Your task to perform on an android device: turn on showing notifications on the lock screen Image 0: 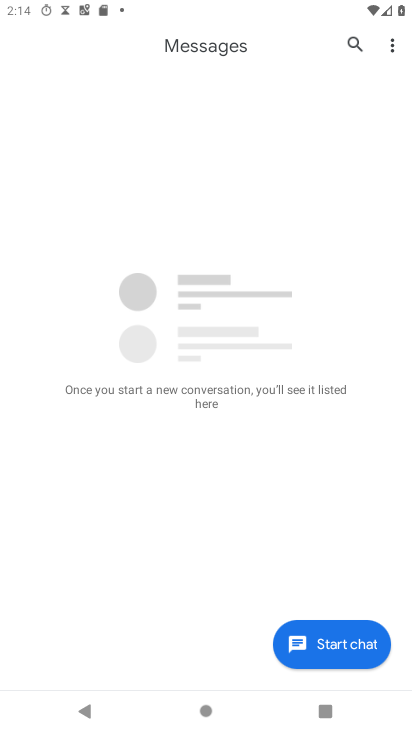
Step 0: press home button
Your task to perform on an android device: turn on showing notifications on the lock screen Image 1: 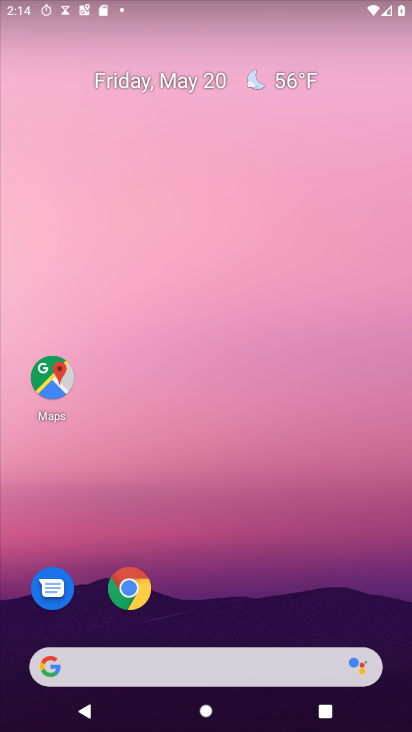
Step 1: drag from (42, 633) to (374, 197)
Your task to perform on an android device: turn on showing notifications on the lock screen Image 2: 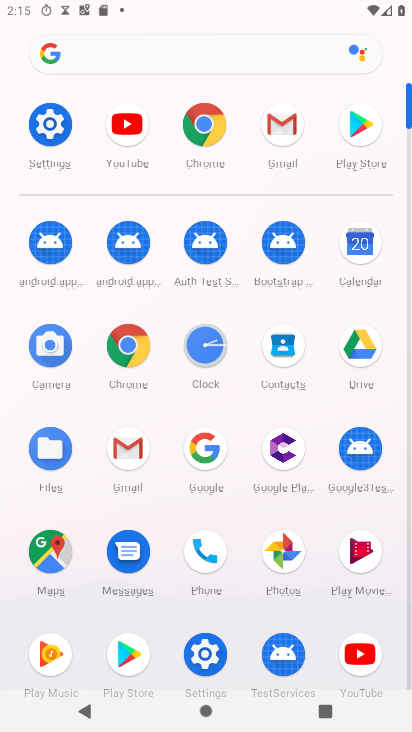
Step 2: click (56, 120)
Your task to perform on an android device: turn on showing notifications on the lock screen Image 3: 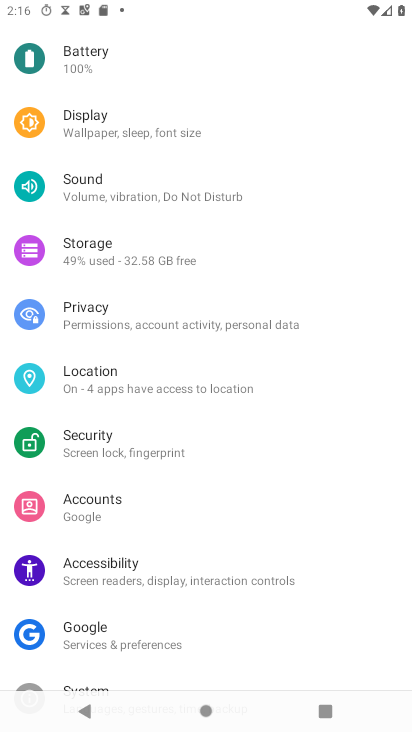
Step 3: drag from (155, 107) to (151, 618)
Your task to perform on an android device: turn on showing notifications on the lock screen Image 4: 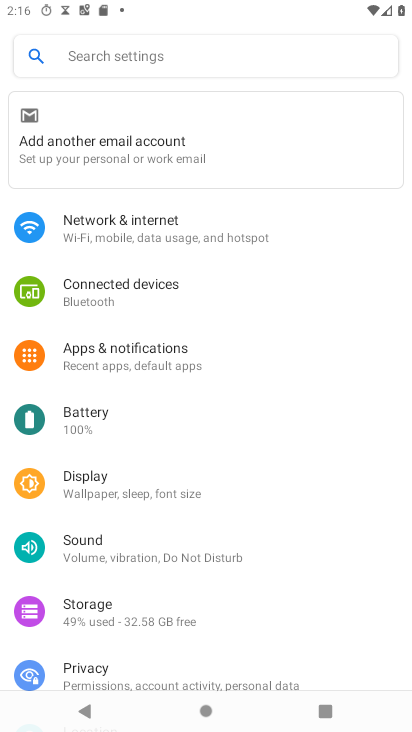
Step 4: click (110, 371)
Your task to perform on an android device: turn on showing notifications on the lock screen Image 5: 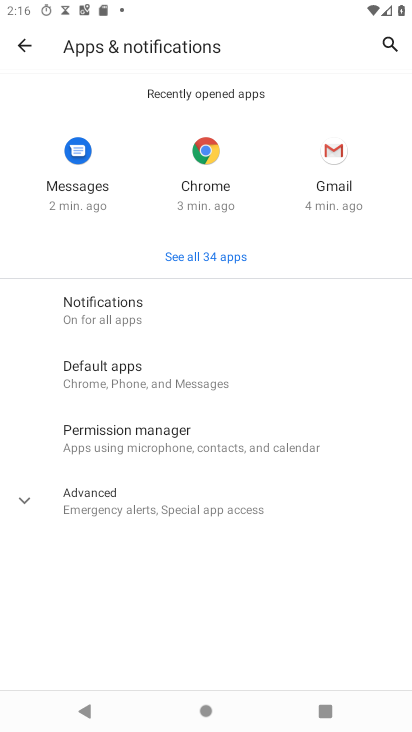
Step 5: click (156, 315)
Your task to perform on an android device: turn on showing notifications on the lock screen Image 6: 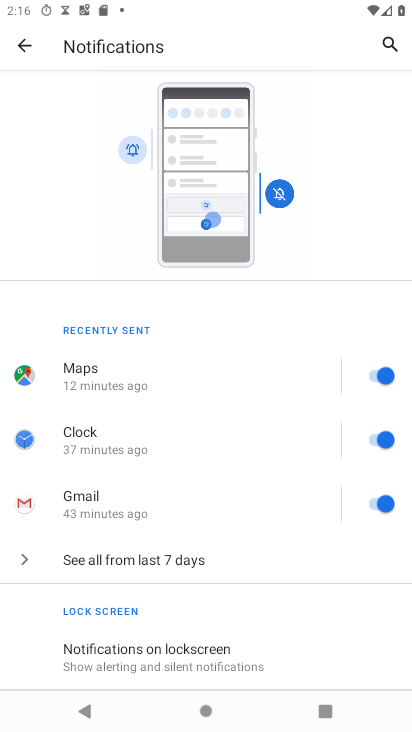
Step 6: click (175, 658)
Your task to perform on an android device: turn on showing notifications on the lock screen Image 7: 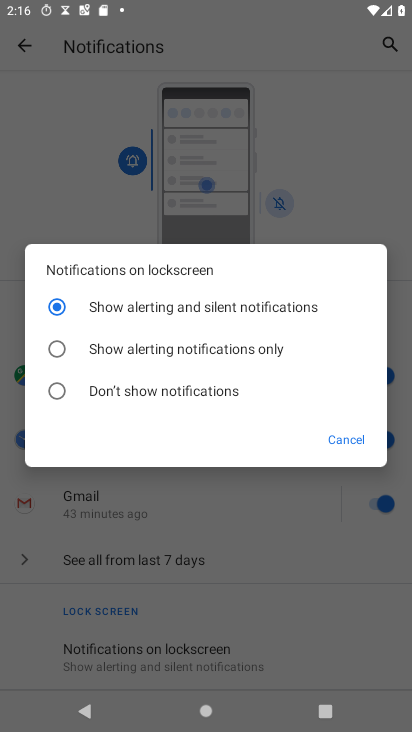
Step 7: task complete